Your task to perform on an android device: allow cookies in the chrome app Image 0: 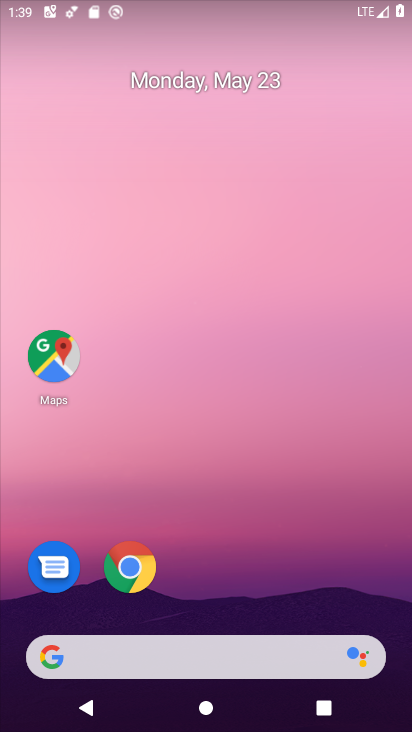
Step 0: click (219, 176)
Your task to perform on an android device: allow cookies in the chrome app Image 1: 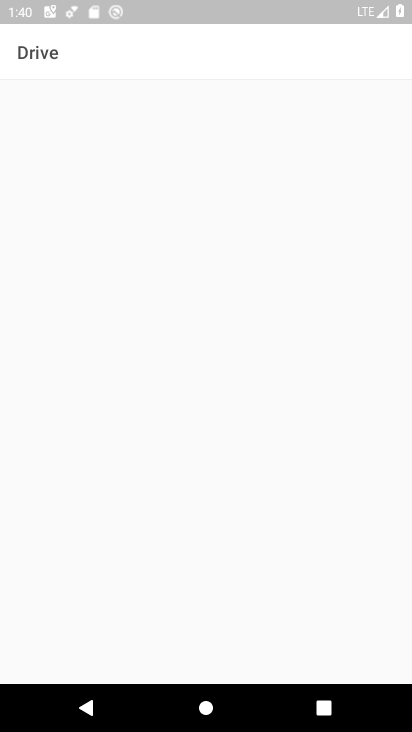
Step 1: drag from (230, 589) to (194, 235)
Your task to perform on an android device: allow cookies in the chrome app Image 2: 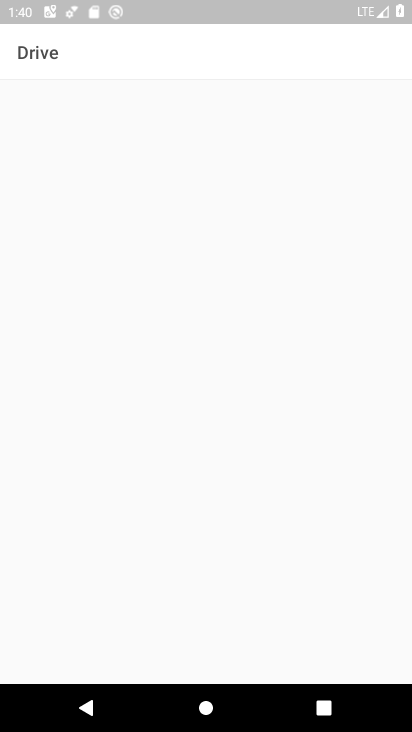
Step 2: press home button
Your task to perform on an android device: allow cookies in the chrome app Image 3: 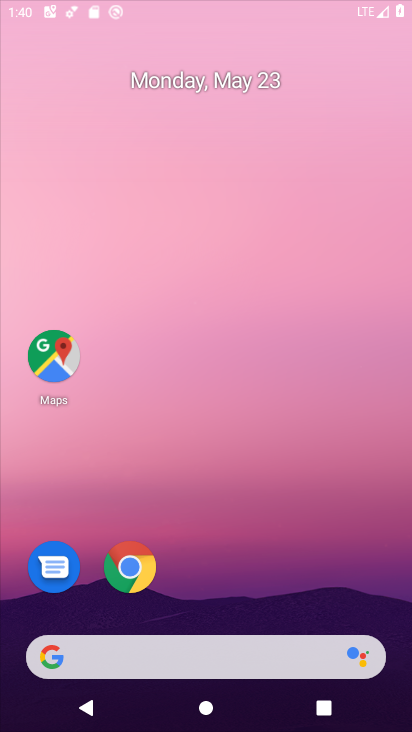
Step 3: drag from (247, 583) to (197, 182)
Your task to perform on an android device: allow cookies in the chrome app Image 4: 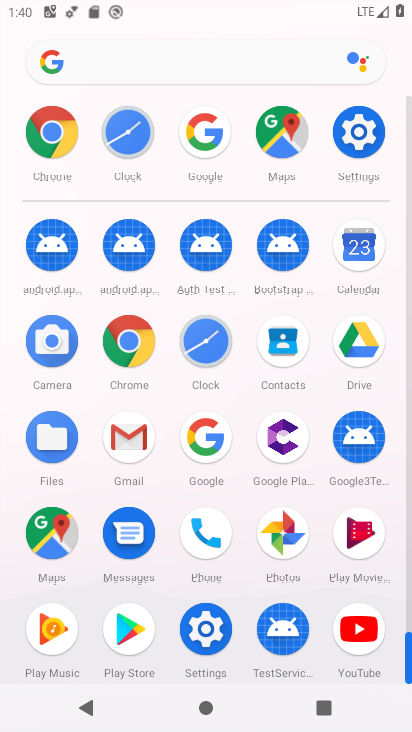
Step 4: click (119, 363)
Your task to perform on an android device: allow cookies in the chrome app Image 5: 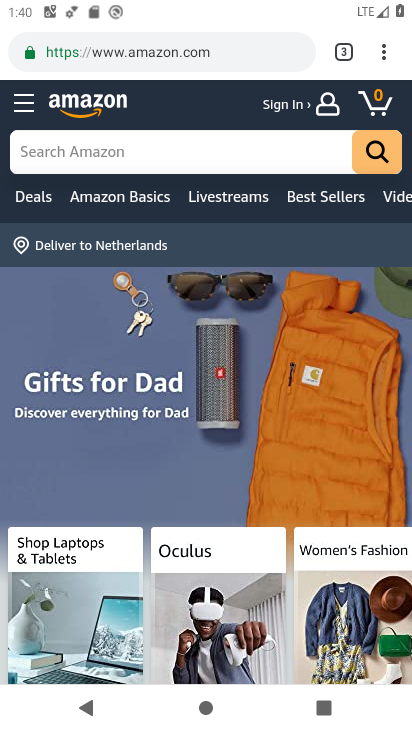
Step 5: click (382, 56)
Your task to perform on an android device: allow cookies in the chrome app Image 6: 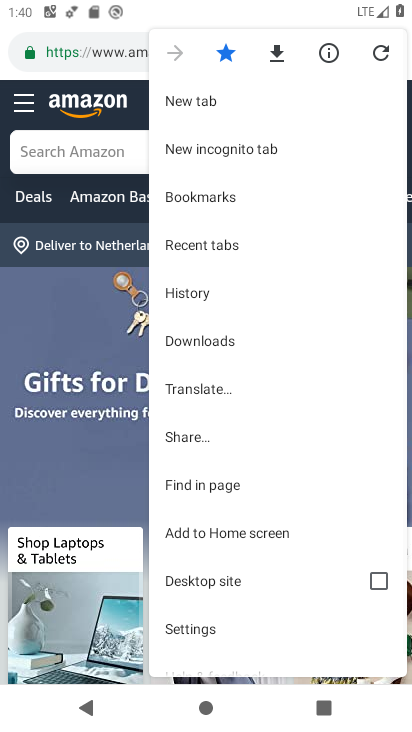
Step 6: drag from (223, 518) to (226, 402)
Your task to perform on an android device: allow cookies in the chrome app Image 7: 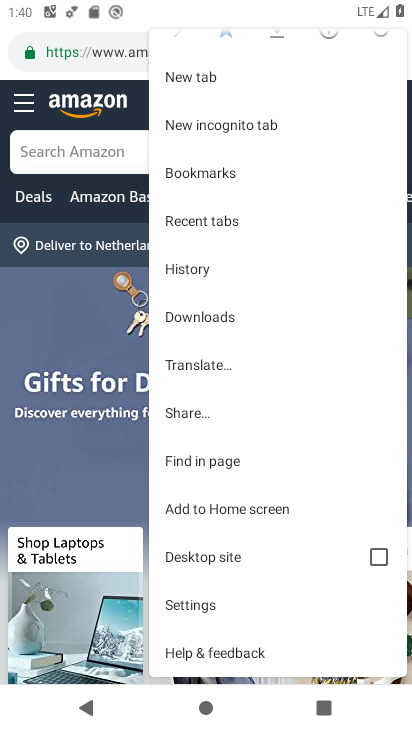
Step 7: click (216, 609)
Your task to perform on an android device: allow cookies in the chrome app Image 8: 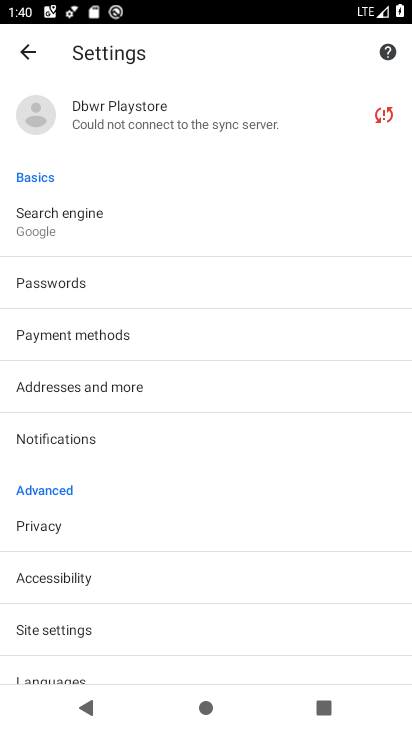
Step 8: click (133, 630)
Your task to perform on an android device: allow cookies in the chrome app Image 9: 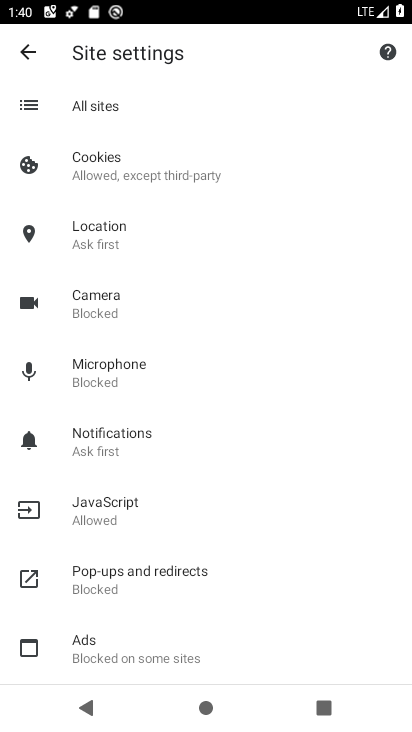
Step 9: click (158, 179)
Your task to perform on an android device: allow cookies in the chrome app Image 10: 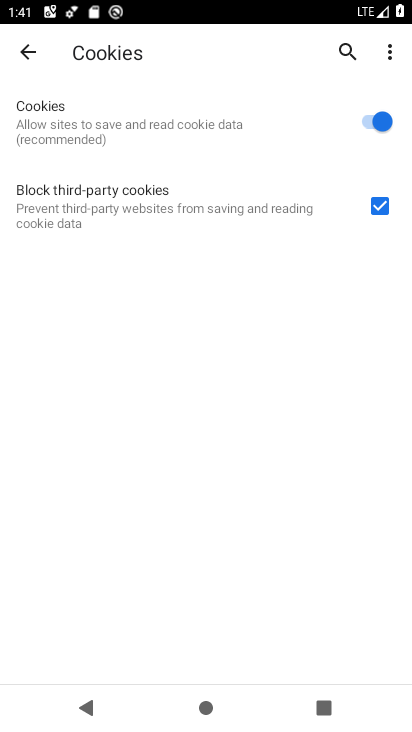
Step 10: task complete